Your task to perform on an android device: Check the weather Image 0: 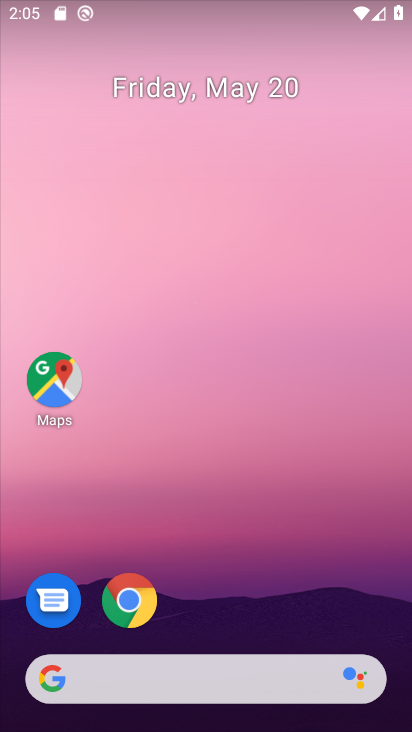
Step 0: drag from (287, 558) to (214, 98)
Your task to perform on an android device: Check the weather Image 1: 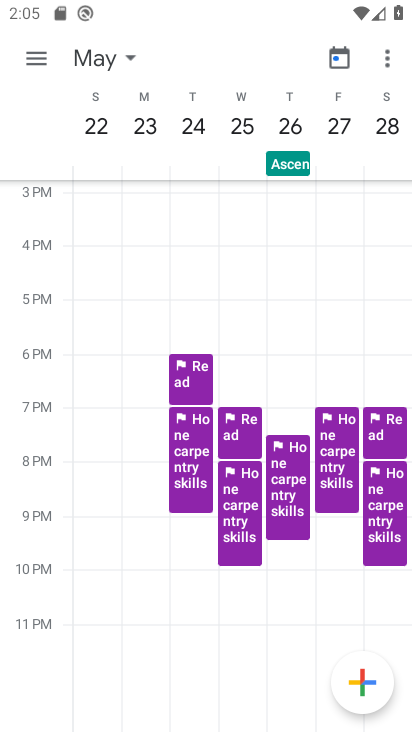
Step 1: press home button
Your task to perform on an android device: Check the weather Image 2: 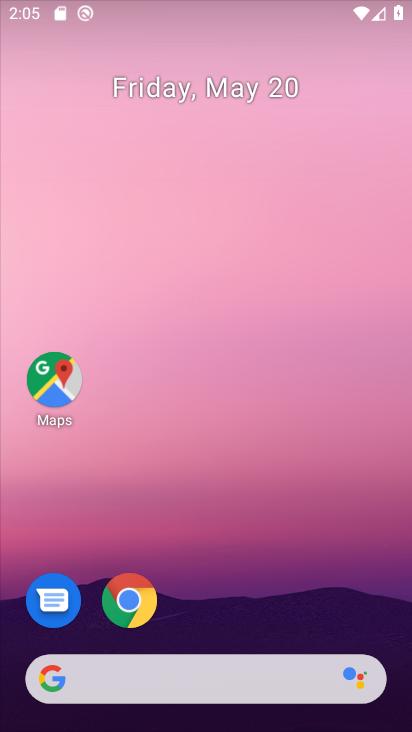
Step 2: drag from (288, 434) to (188, 1)
Your task to perform on an android device: Check the weather Image 3: 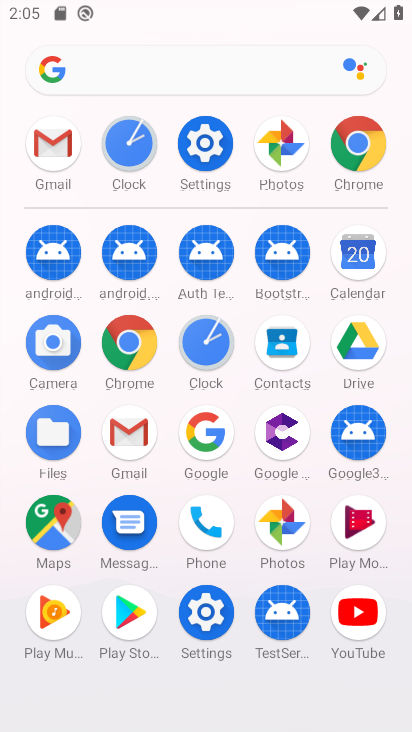
Step 3: click (208, 433)
Your task to perform on an android device: Check the weather Image 4: 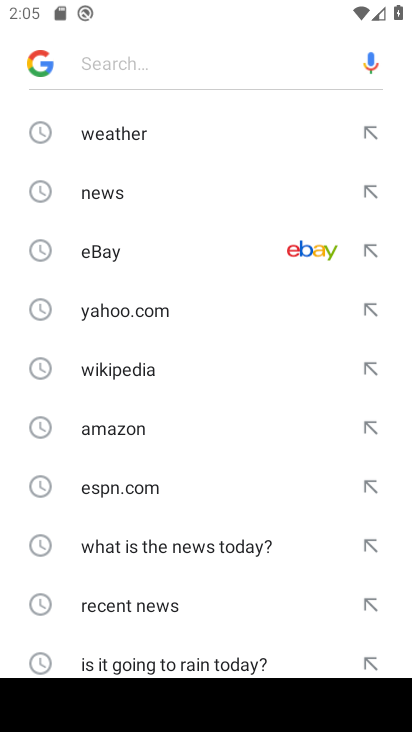
Step 4: click (166, 142)
Your task to perform on an android device: Check the weather Image 5: 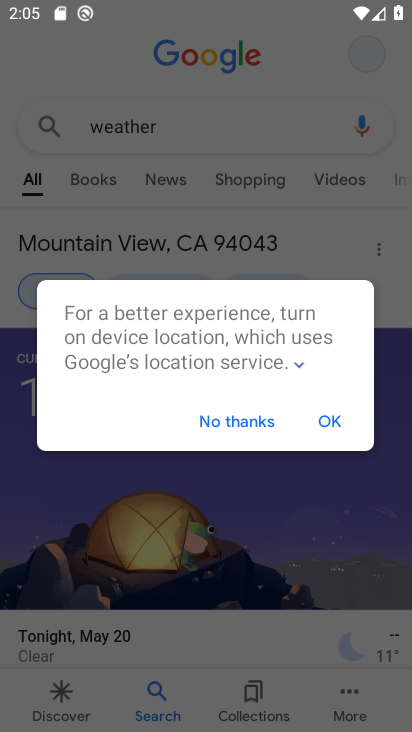
Step 5: task complete